Your task to perform on an android device: open app "Mercado Libre" (install if not already installed) Image 0: 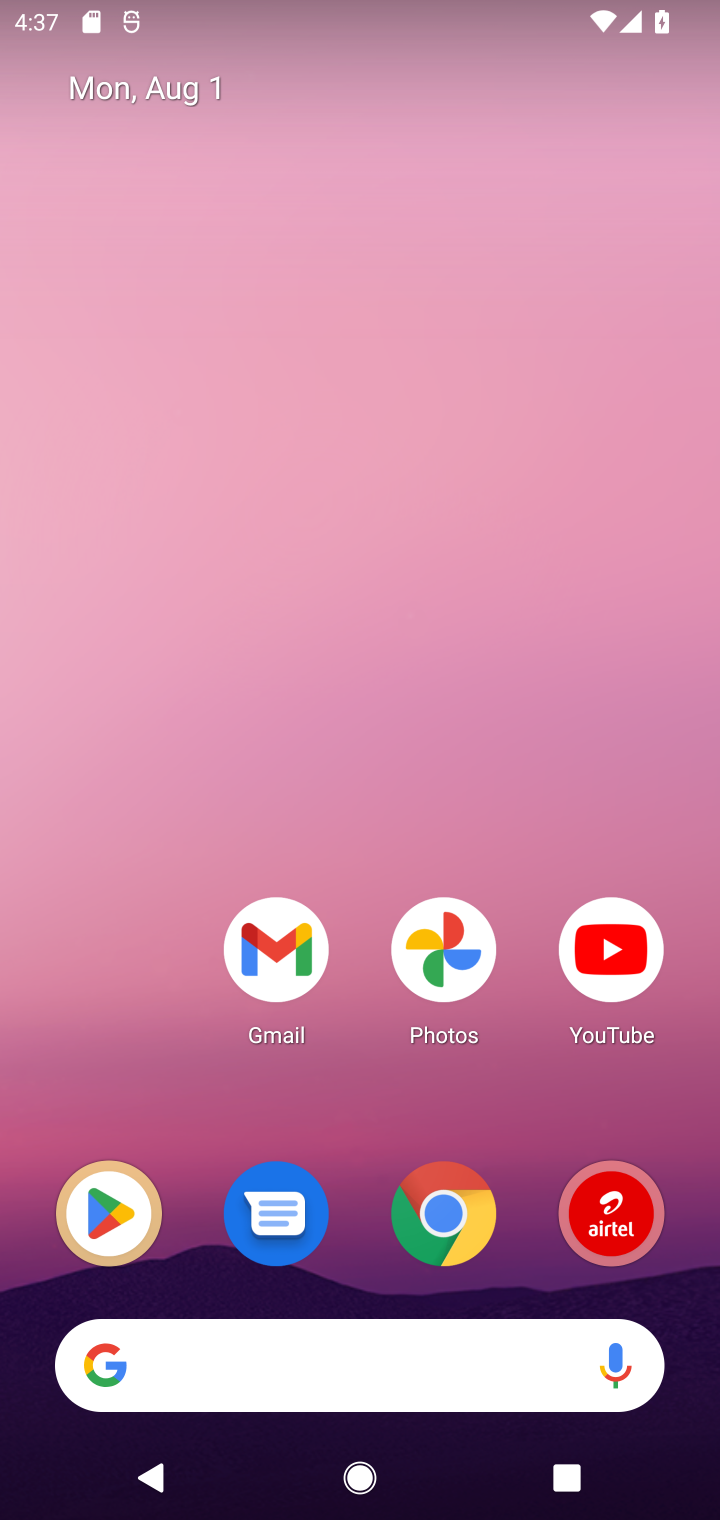
Step 0: drag from (541, 1073) to (633, 0)
Your task to perform on an android device: open app "Mercado Libre" (install if not already installed) Image 1: 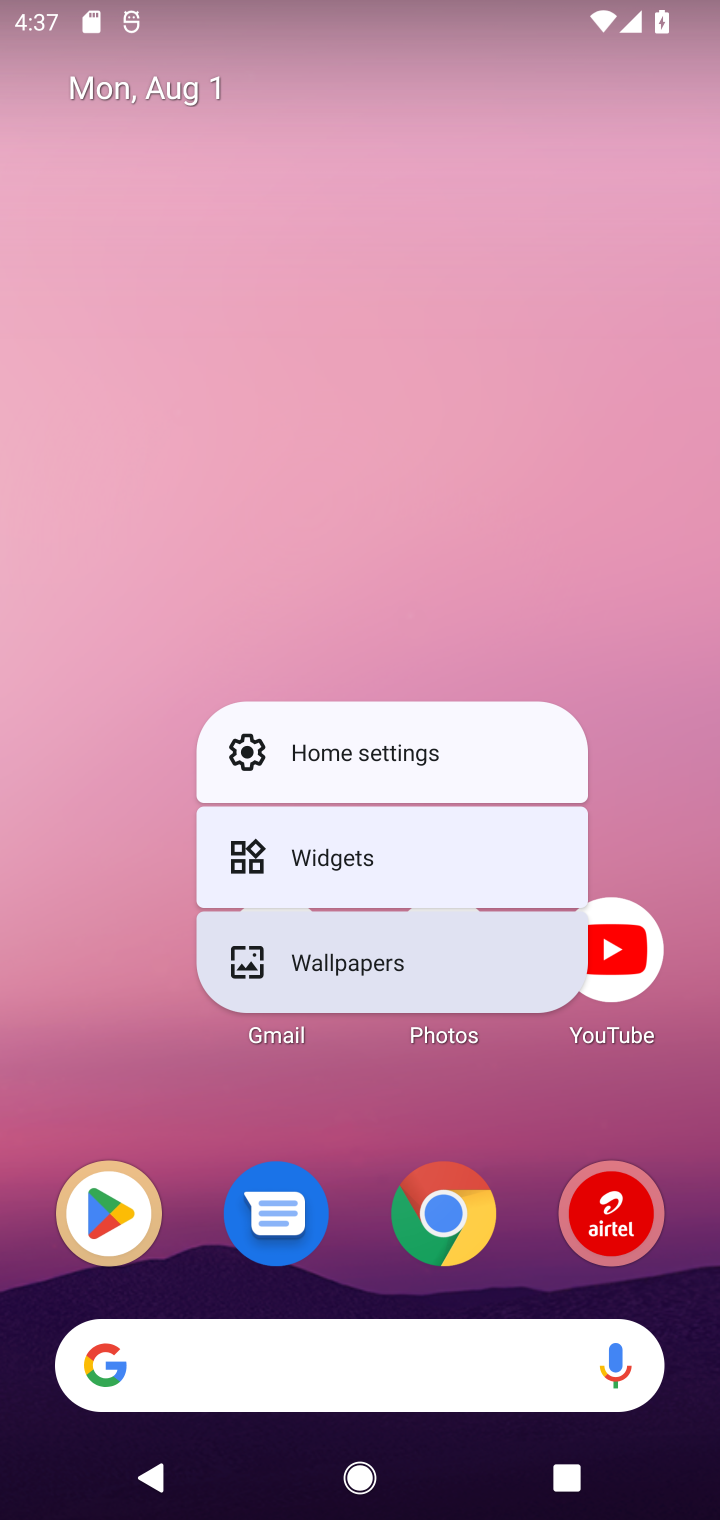
Step 1: click (617, 354)
Your task to perform on an android device: open app "Mercado Libre" (install if not already installed) Image 2: 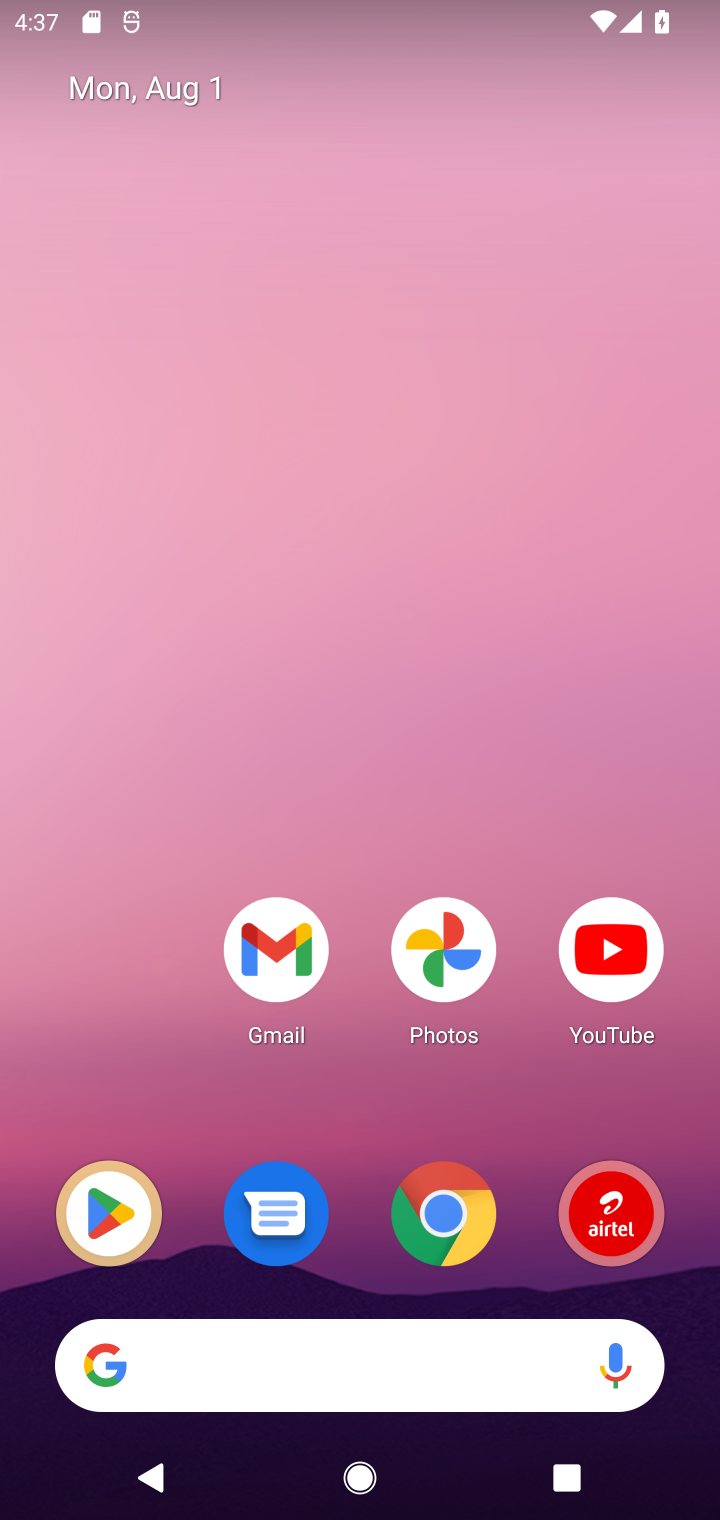
Step 2: drag from (186, 1046) to (406, 3)
Your task to perform on an android device: open app "Mercado Libre" (install if not already installed) Image 3: 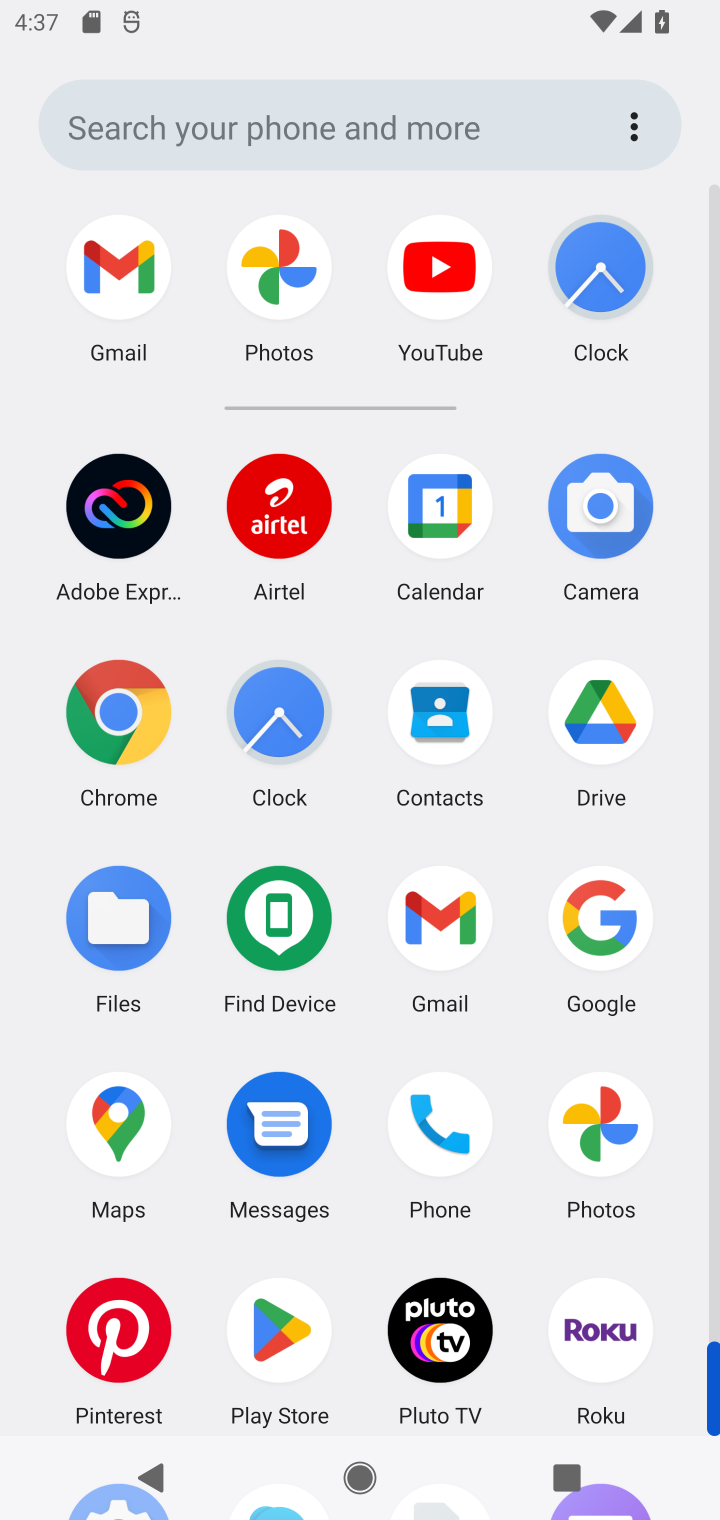
Step 3: click (273, 1310)
Your task to perform on an android device: open app "Mercado Libre" (install if not already installed) Image 4: 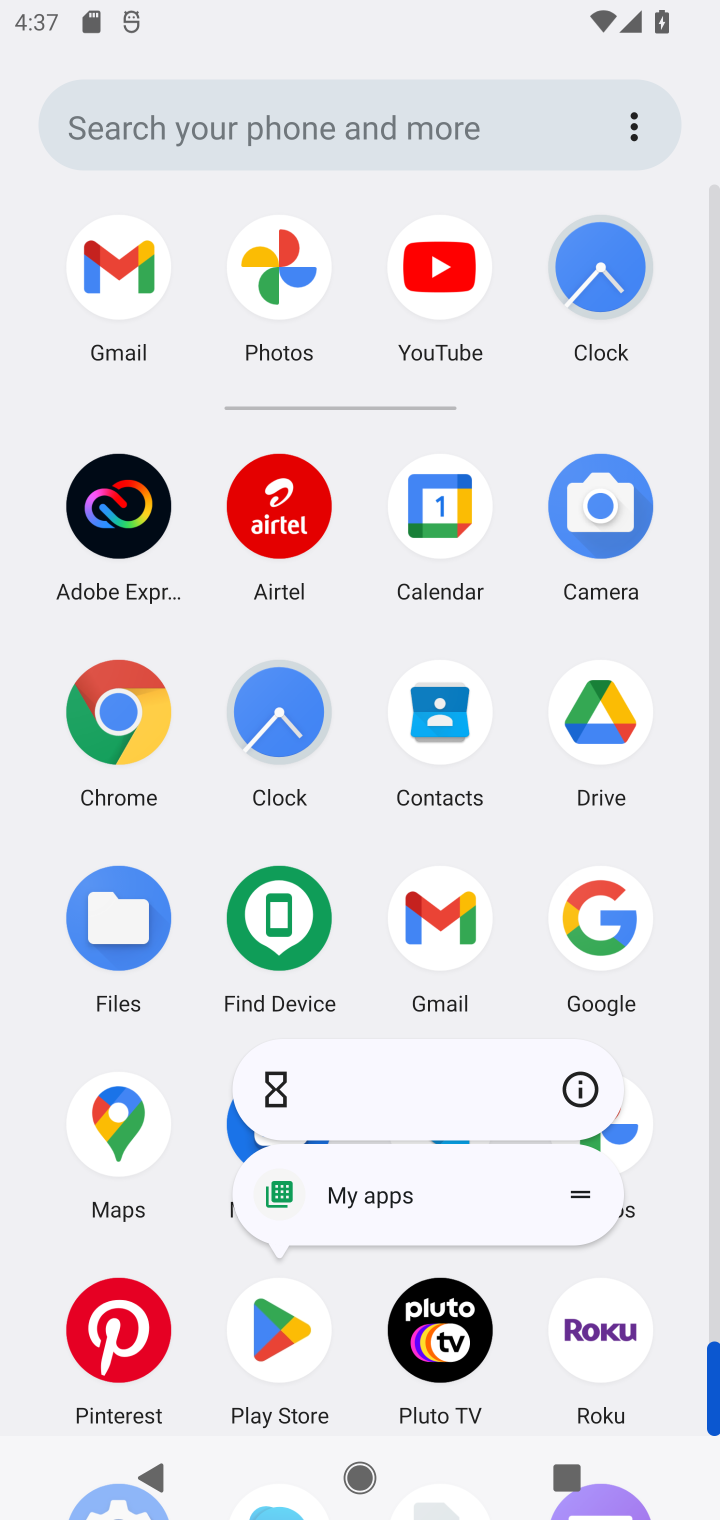
Step 4: click (282, 1336)
Your task to perform on an android device: open app "Mercado Libre" (install if not already installed) Image 5: 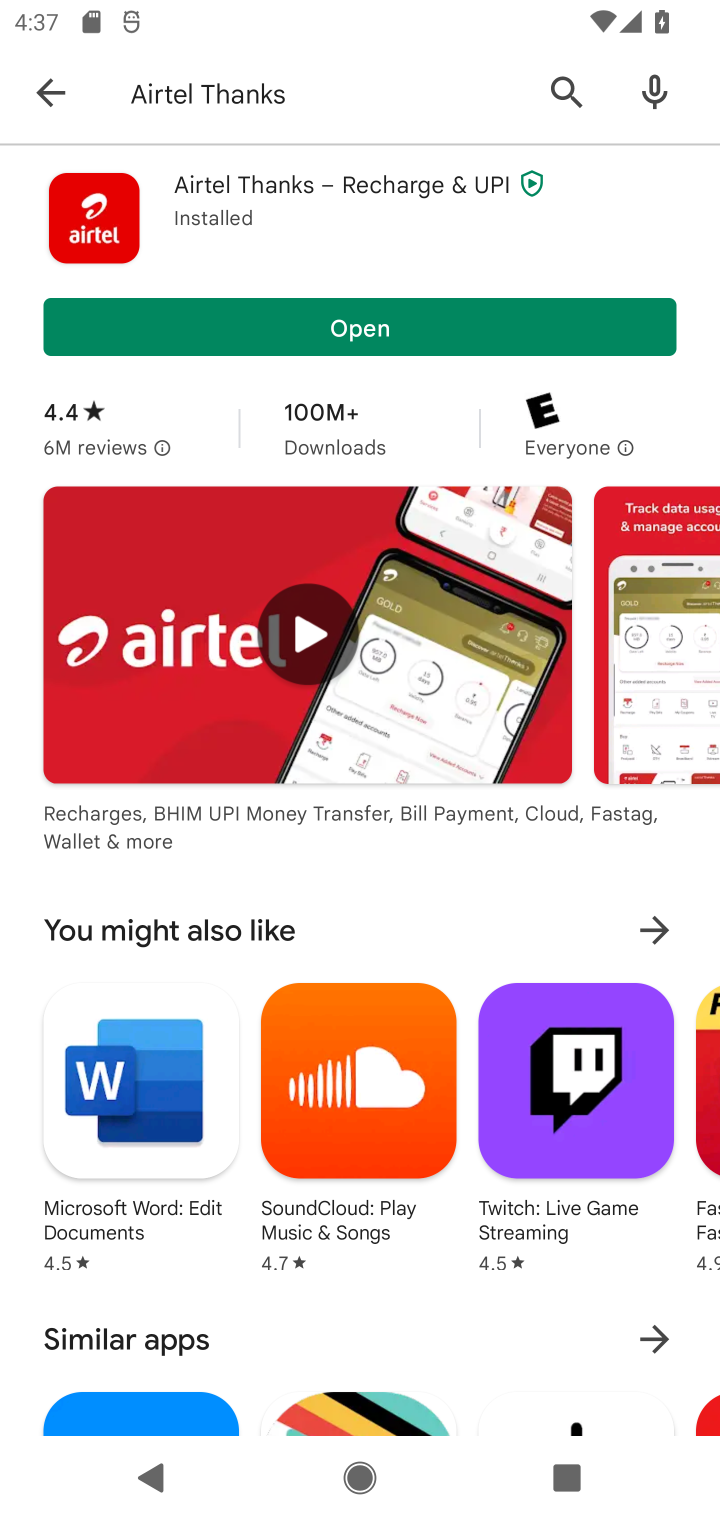
Step 5: click (410, 107)
Your task to perform on an android device: open app "Mercado Libre" (install if not already installed) Image 6: 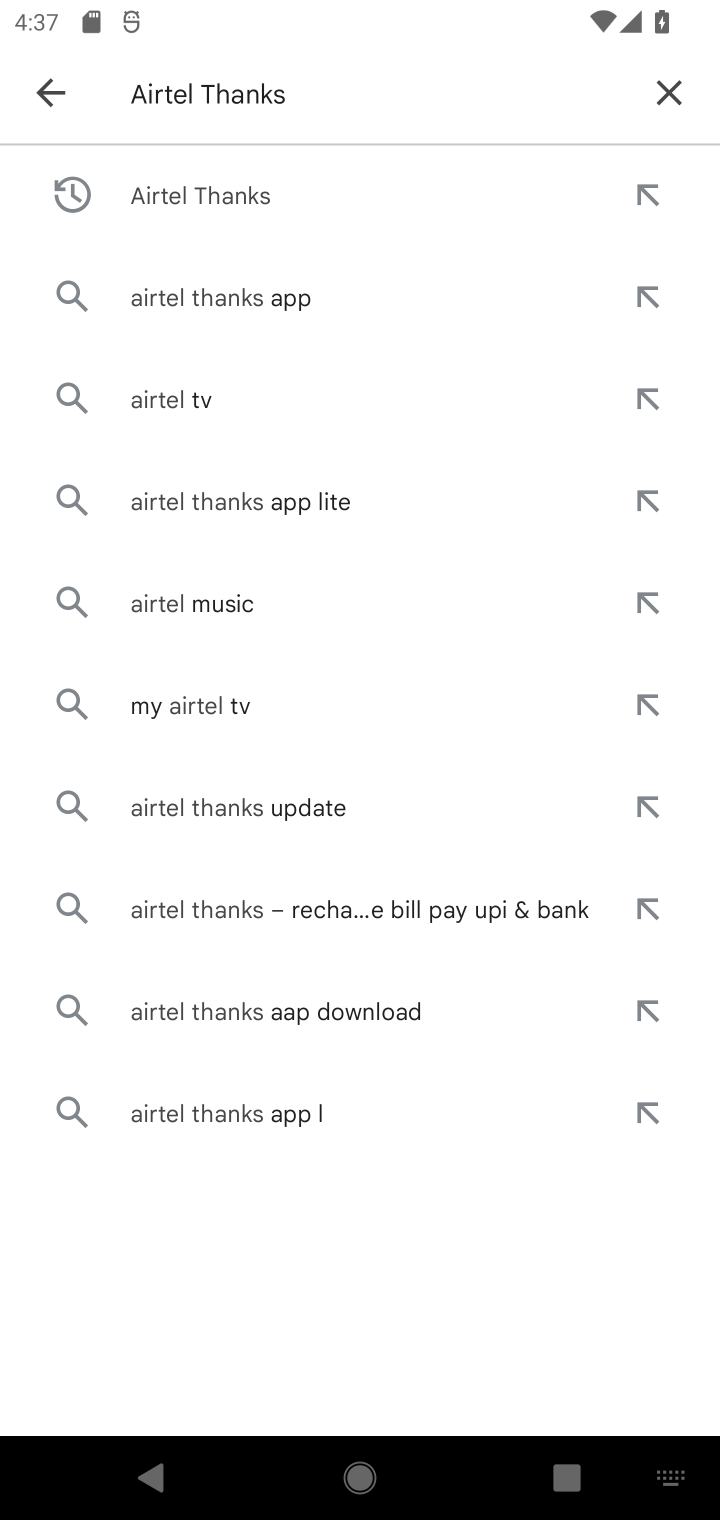
Step 6: click (683, 79)
Your task to perform on an android device: open app "Mercado Libre" (install if not already installed) Image 7: 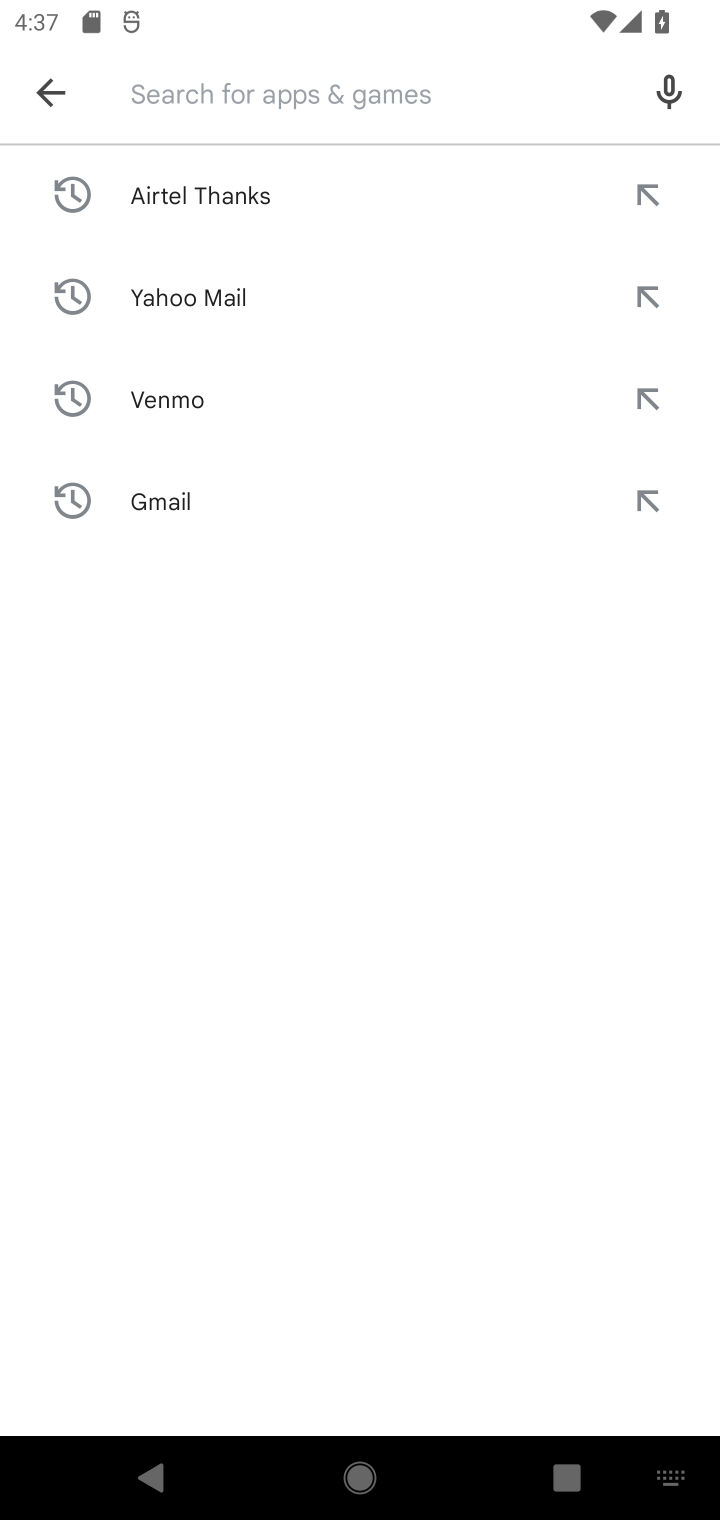
Step 7: type "Mercado Libre"
Your task to perform on an android device: open app "Mercado Libre" (install if not already installed) Image 8: 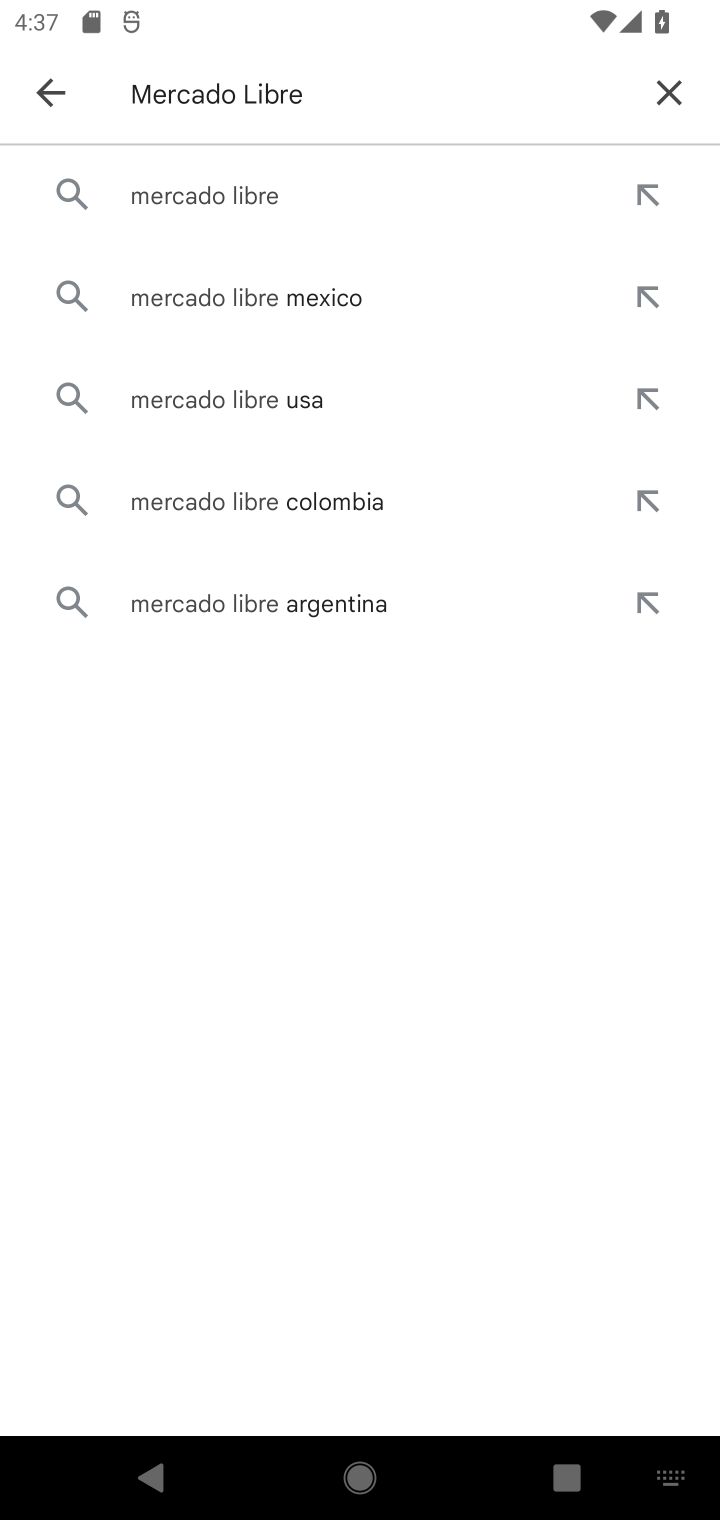
Step 8: press enter
Your task to perform on an android device: open app "Mercado Libre" (install if not already installed) Image 9: 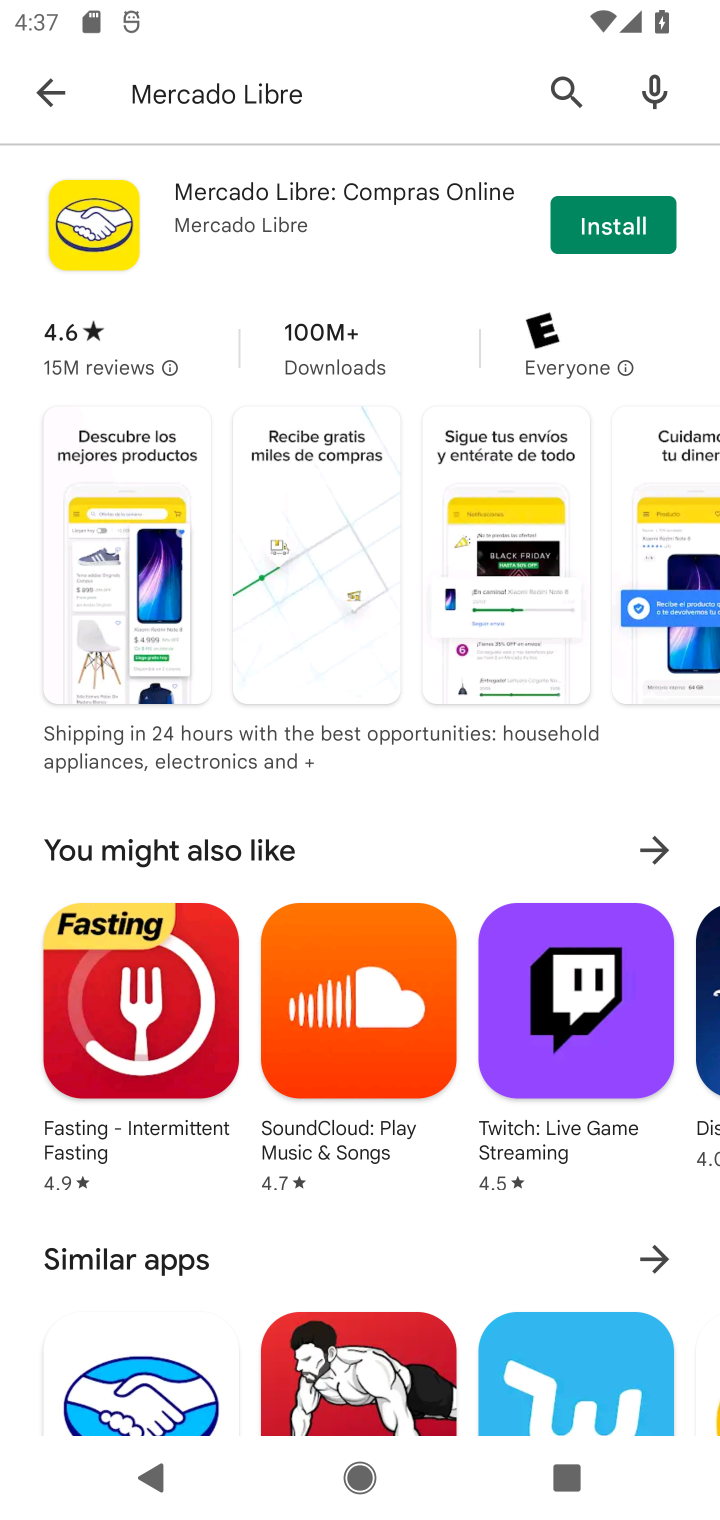
Step 9: click (618, 228)
Your task to perform on an android device: open app "Mercado Libre" (install if not already installed) Image 10: 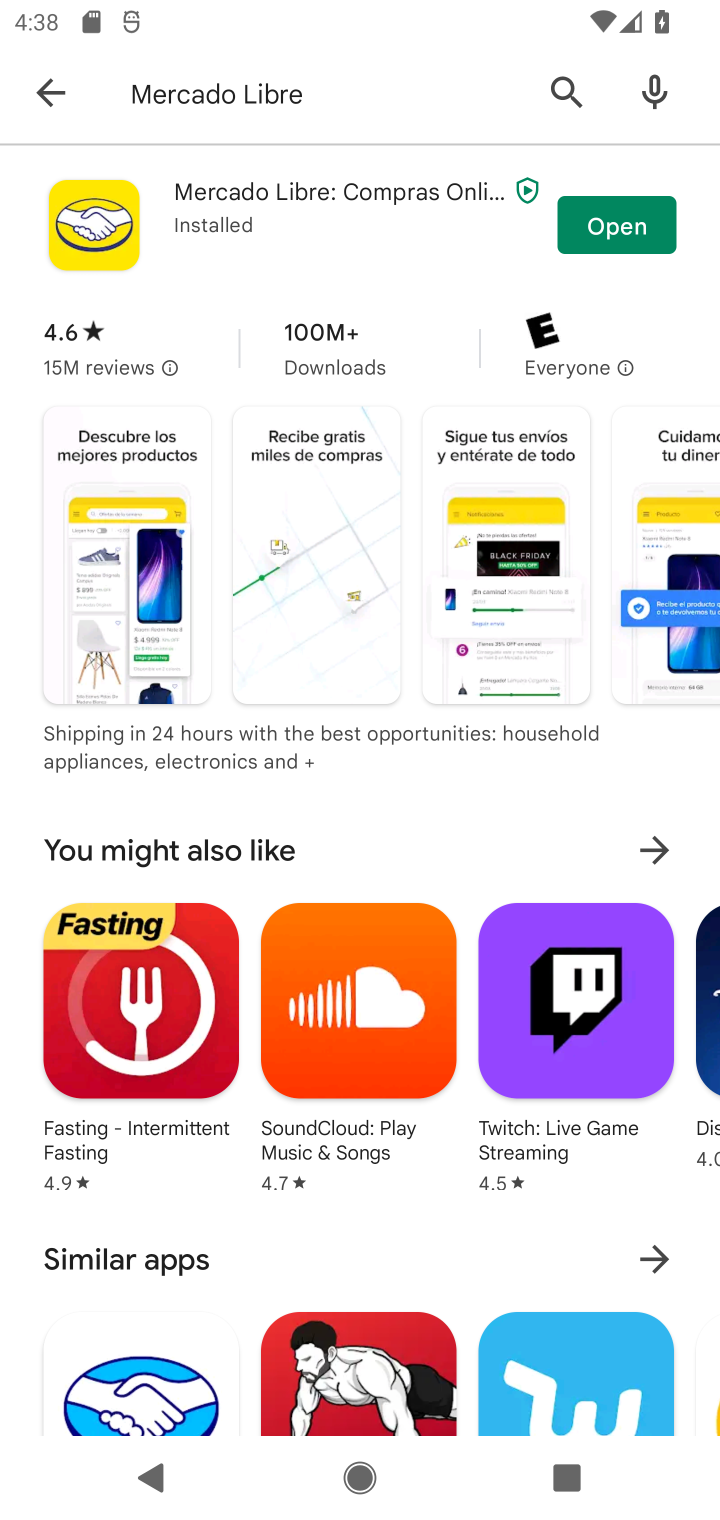
Step 10: click (618, 228)
Your task to perform on an android device: open app "Mercado Libre" (install if not already installed) Image 11: 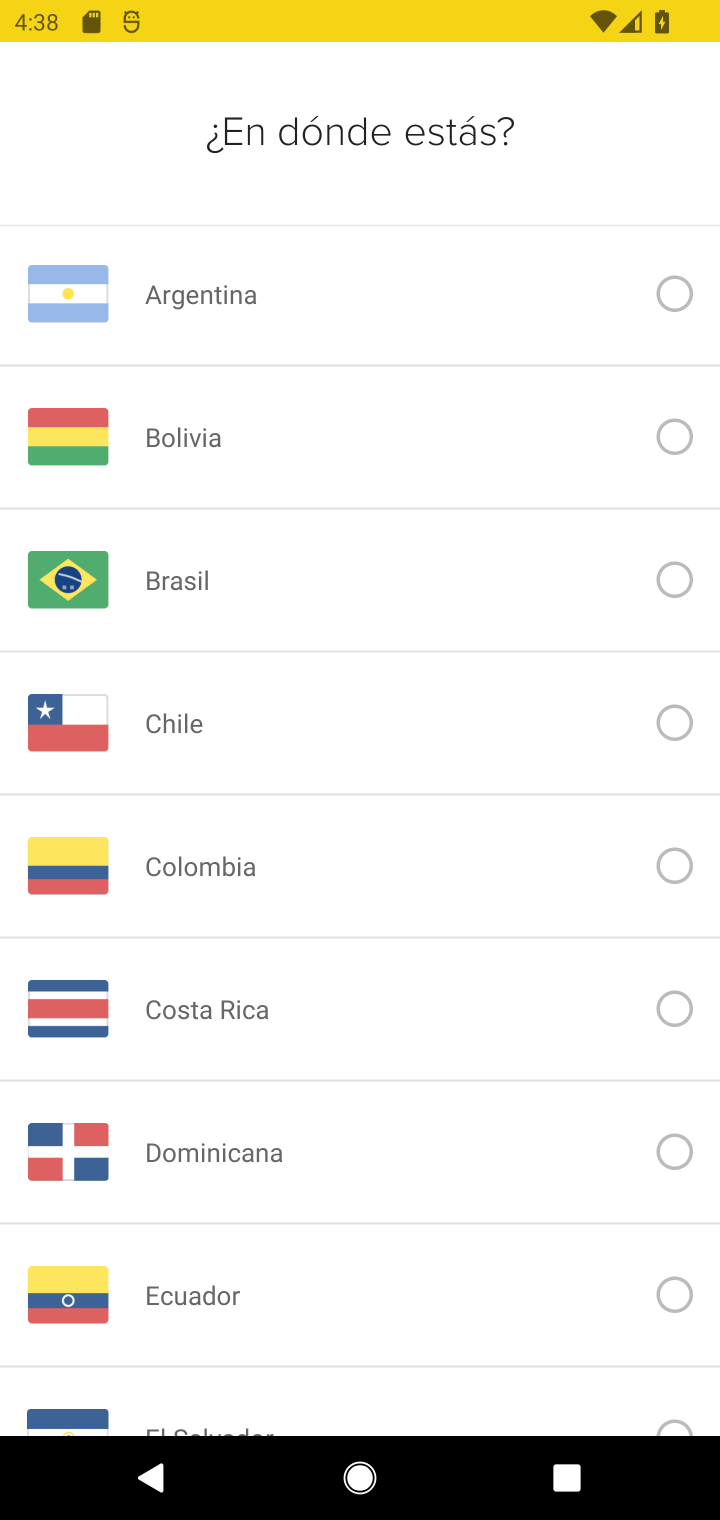
Step 11: task complete